Your task to perform on an android device: When is my next meeting? Image 0: 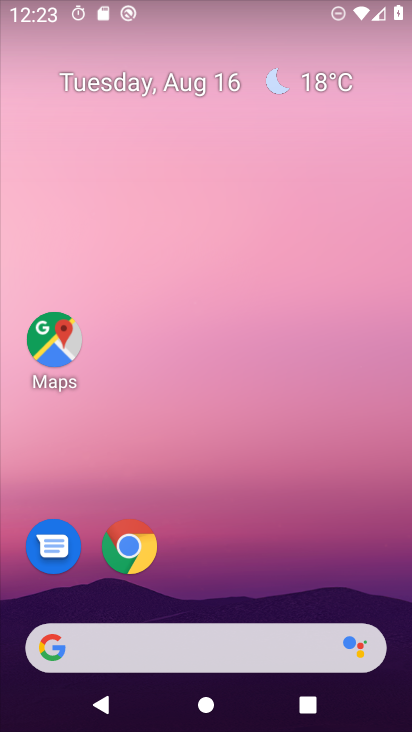
Step 0: drag from (232, 570) to (222, 33)
Your task to perform on an android device: When is my next meeting? Image 1: 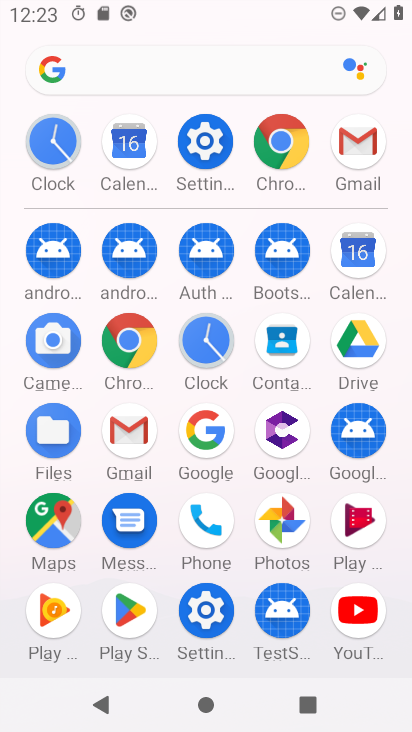
Step 1: click (355, 240)
Your task to perform on an android device: When is my next meeting? Image 2: 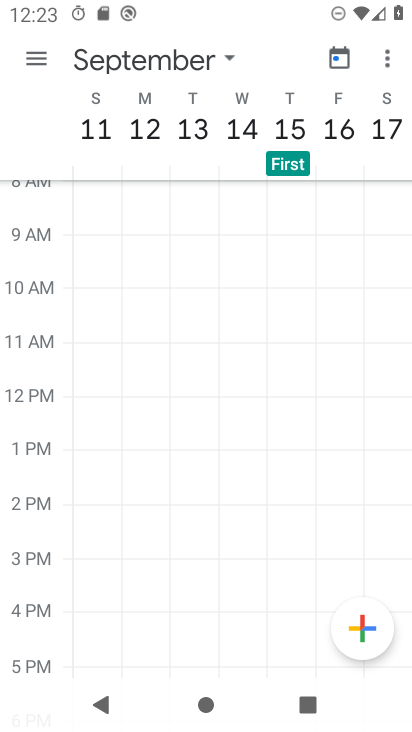
Step 2: click (34, 58)
Your task to perform on an android device: When is my next meeting? Image 3: 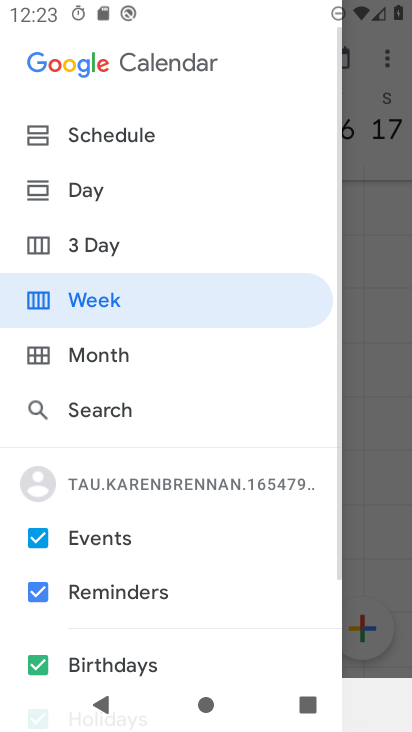
Step 3: drag from (118, 634) to (88, 380)
Your task to perform on an android device: When is my next meeting? Image 4: 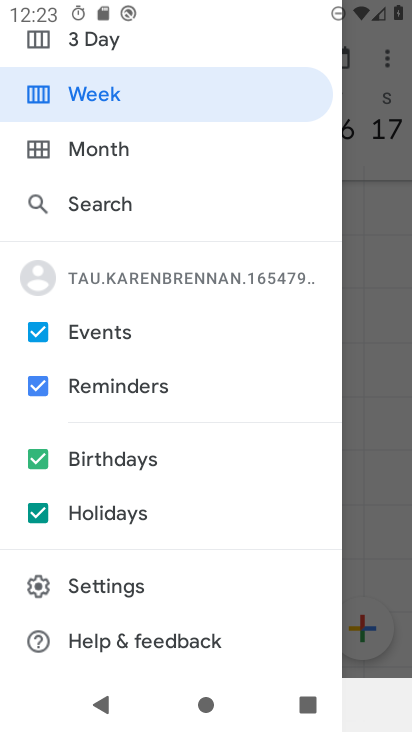
Step 4: click (36, 510)
Your task to perform on an android device: When is my next meeting? Image 5: 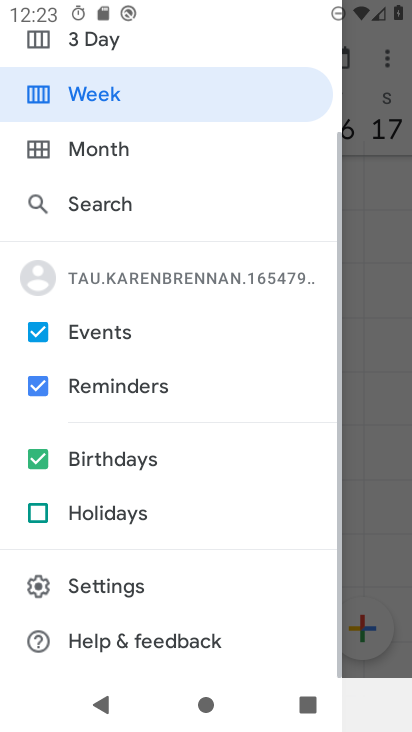
Step 5: click (42, 454)
Your task to perform on an android device: When is my next meeting? Image 6: 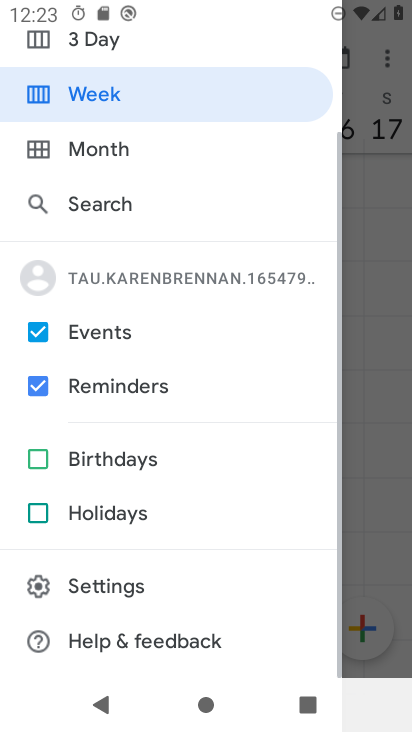
Step 6: click (40, 388)
Your task to perform on an android device: When is my next meeting? Image 7: 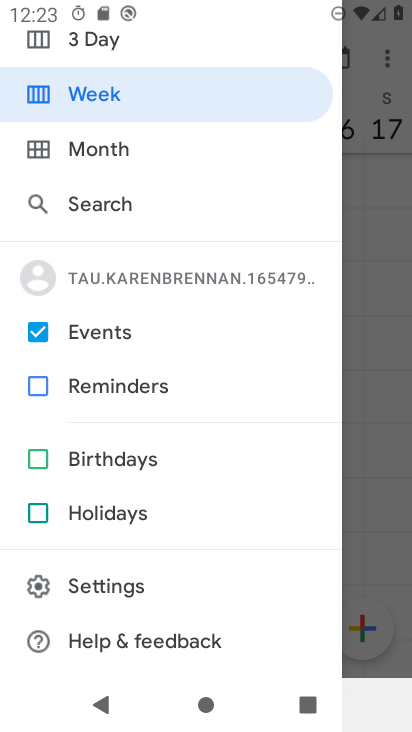
Step 7: click (373, 112)
Your task to perform on an android device: When is my next meeting? Image 8: 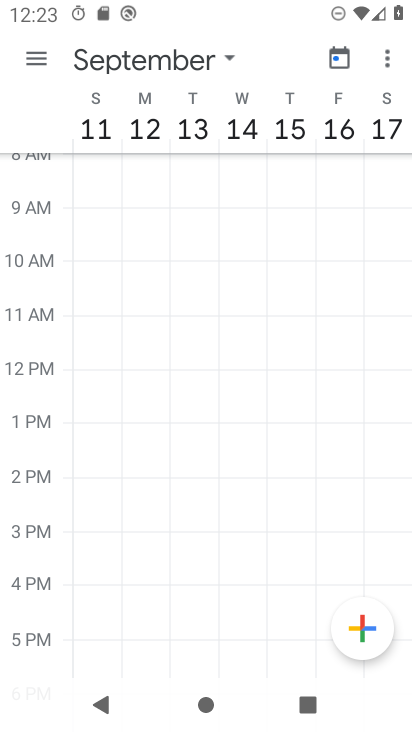
Step 8: drag from (109, 121) to (368, 125)
Your task to perform on an android device: When is my next meeting? Image 9: 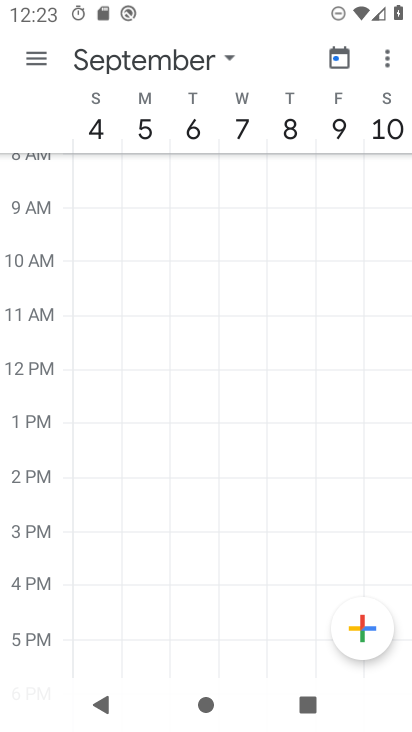
Step 9: drag from (104, 122) to (396, 154)
Your task to perform on an android device: When is my next meeting? Image 10: 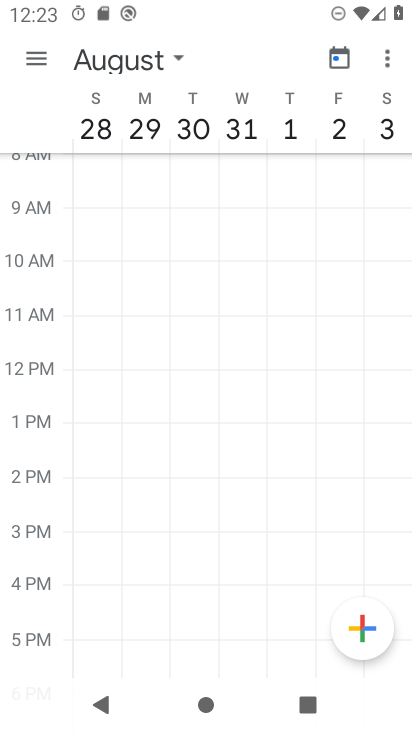
Step 10: click (178, 60)
Your task to perform on an android device: When is my next meeting? Image 11: 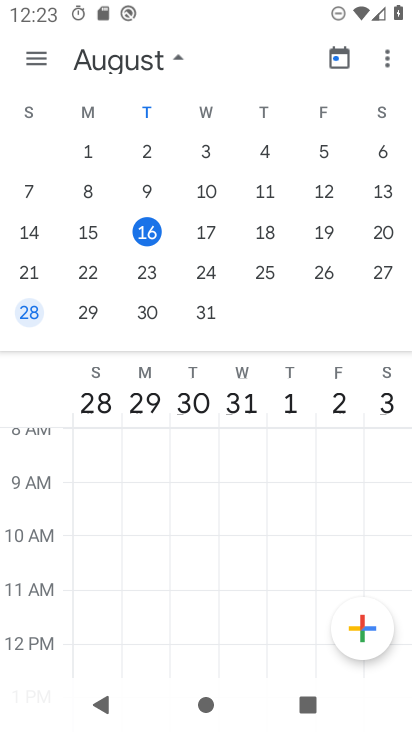
Step 11: click (208, 229)
Your task to perform on an android device: When is my next meeting? Image 12: 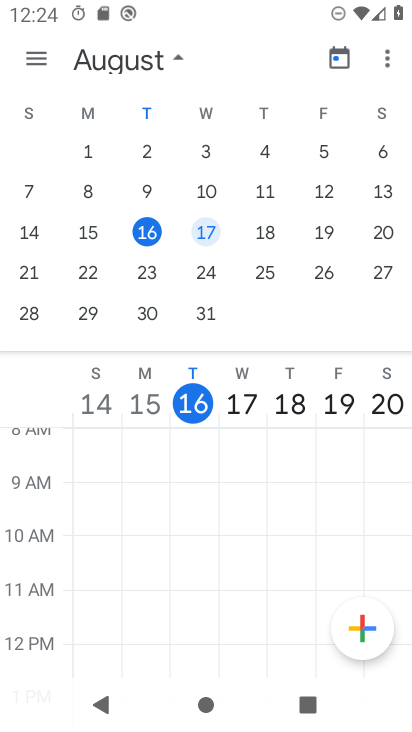
Step 12: click (246, 399)
Your task to perform on an android device: When is my next meeting? Image 13: 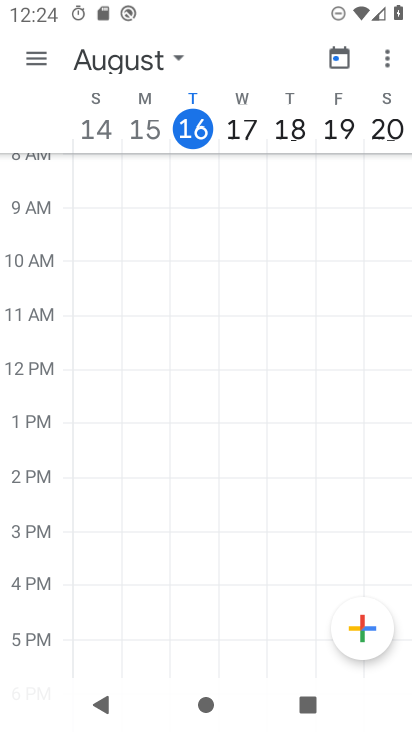
Step 13: click (248, 112)
Your task to perform on an android device: When is my next meeting? Image 14: 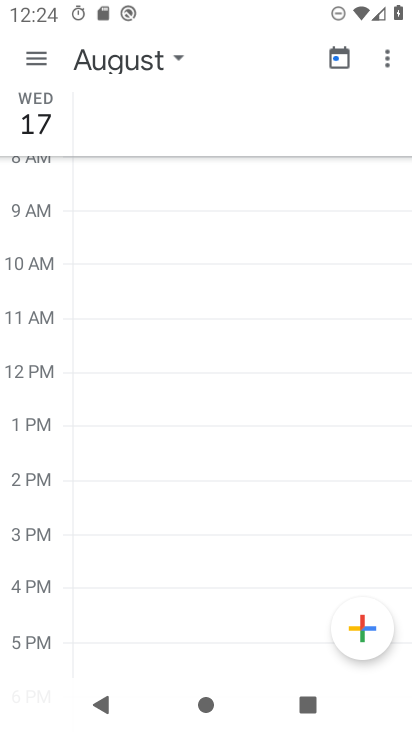
Step 14: task complete